Your task to perform on an android device: find snoozed emails in the gmail app Image 0: 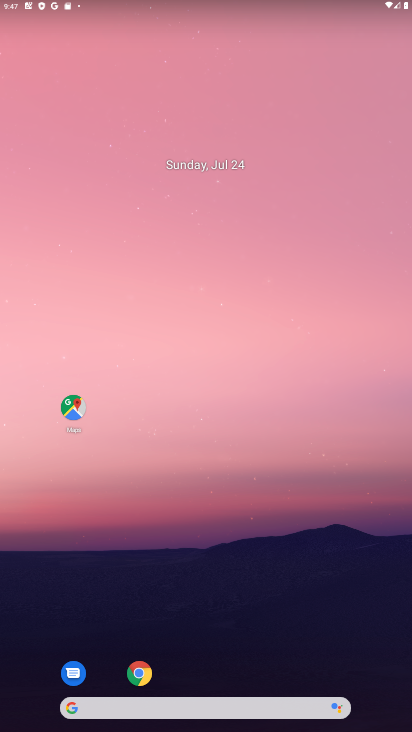
Step 0: click (259, 31)
Your task to perform on an android device: find snoozed emails in the gmail app Image 1: 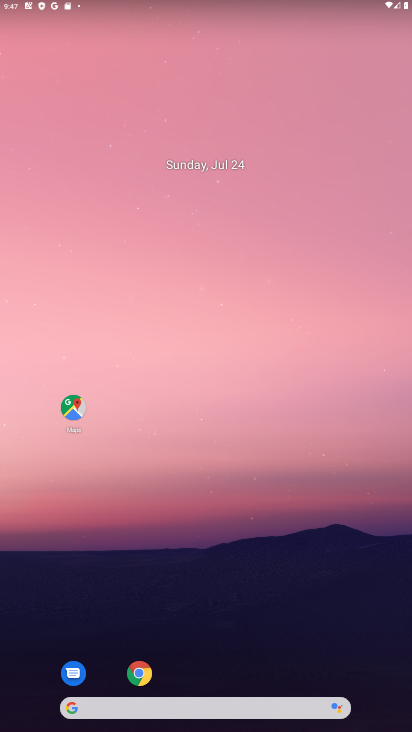
Step 1: drag from (19, 677) to (217, 18)
Your task to perform on an android device: find snoozed emails in the gmail app Image 2: 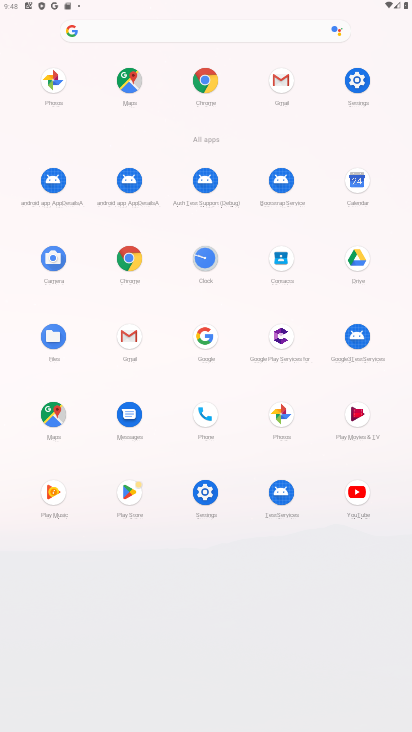
Step 2: click (127, 347)
Your task to perform on an android device: find snoozed emails in the gmail app Image 3: 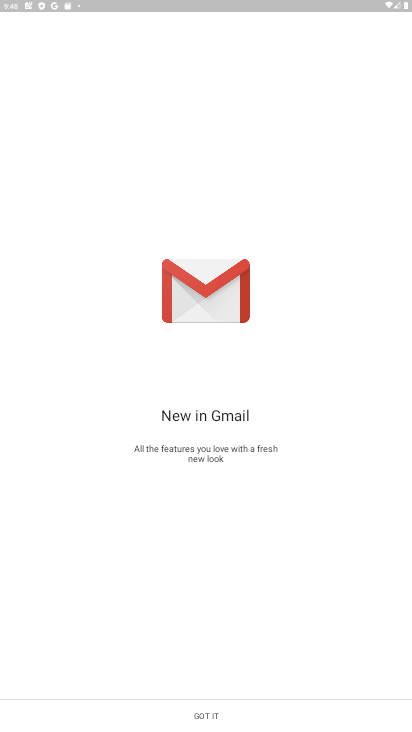
Step 3: click (216, 720)
Your task to perform on an android device: find snoozed emails in the gmail app Image 4: 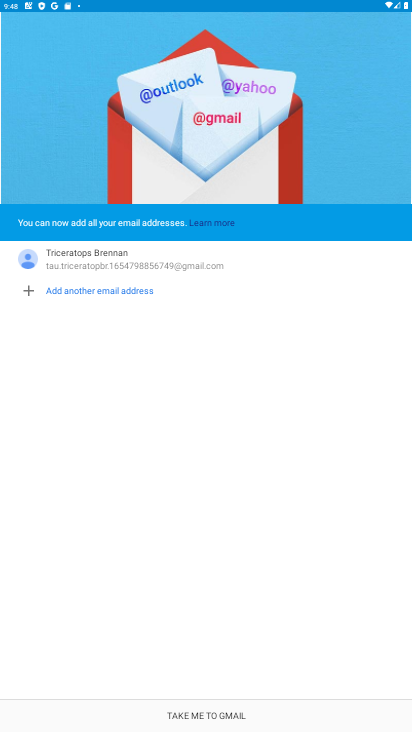
Step 4: click (195, 711)
Your task to perform on an android device: find snoozed emails in the gmail app Image 5: 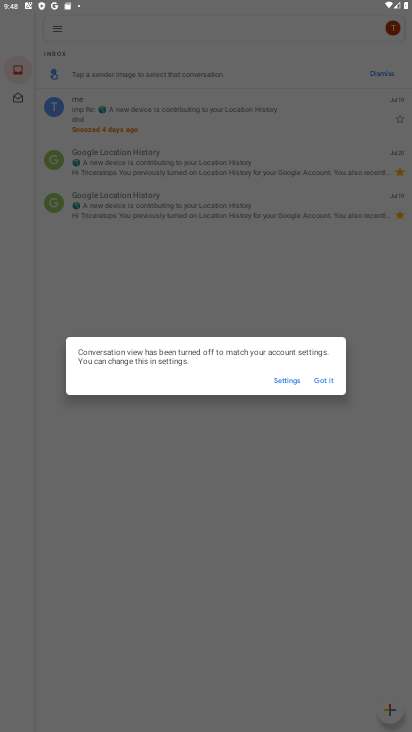
Step 5: click (318, 376)
Your task to perform on an android device: find snoozed emails in the gmail app Image 6: 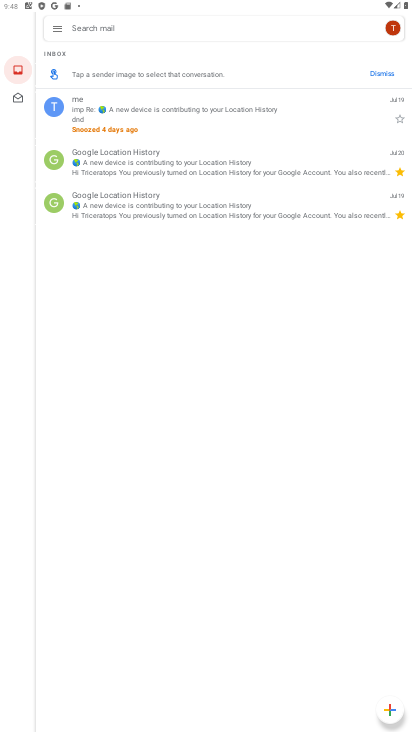
Step 6: click (53, 26)
Your task to perform on an android device: find snoozed emails in the gmail app Image 7: 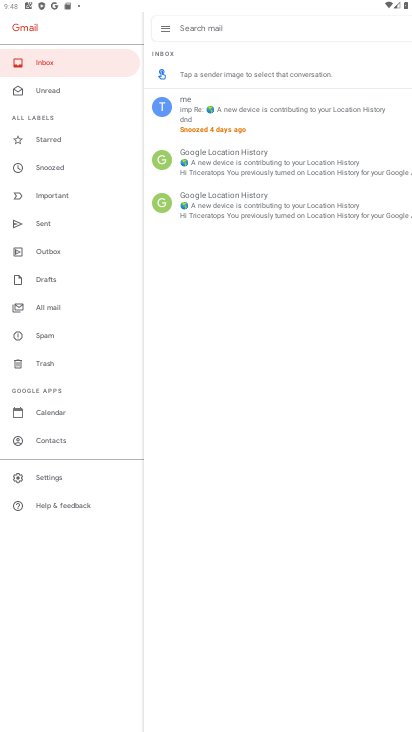
Step 7: click (57, 170)
Your task to perform on an android device: find snoozed emails in the gmail app Image 8: 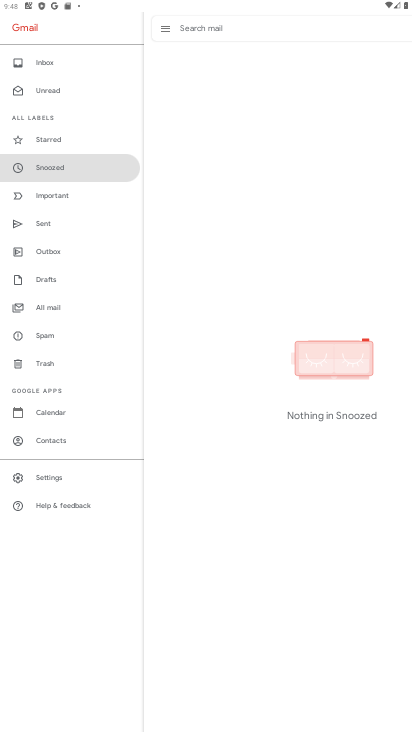
Step 8: task complete